Your task to perform on an android device: create a new album in the google photos Image 0: 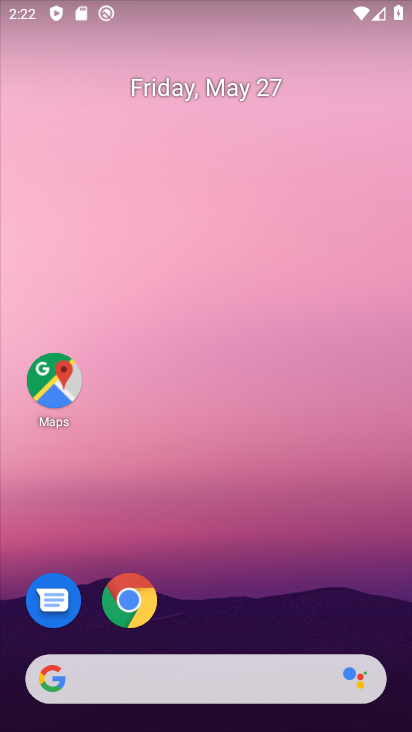
Step 0: drag from (213, 726) to (214, 14)
Your task to perform on an android device: create a new album in the google photos Image 1: 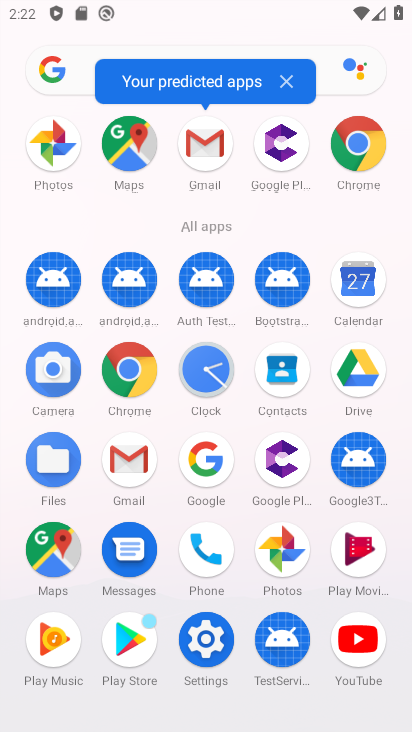
Step 1: click (278, 534)
Your task to perform on an android device: create a new album in the google photos Image 2: 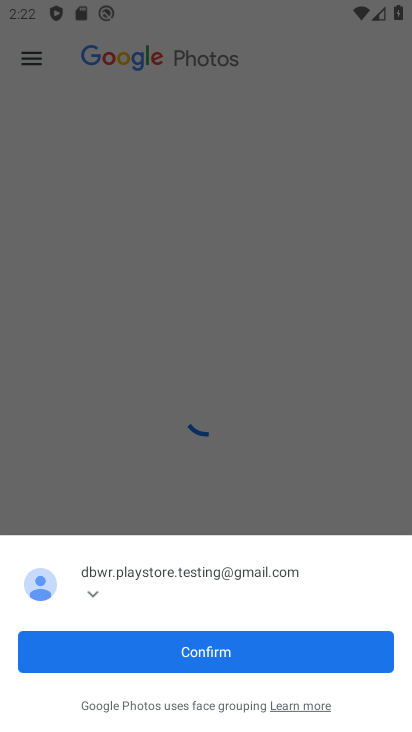
Step 2: click (208, 649)
Your task to perform on an android device: create a new album in the google photos Image 3: 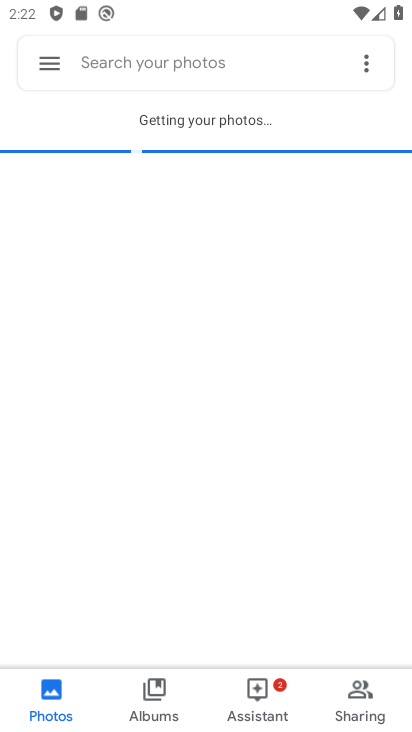
Step 3: click (365, 67)
Your task to perform on an android device: create a new album in the google photos Image 4: 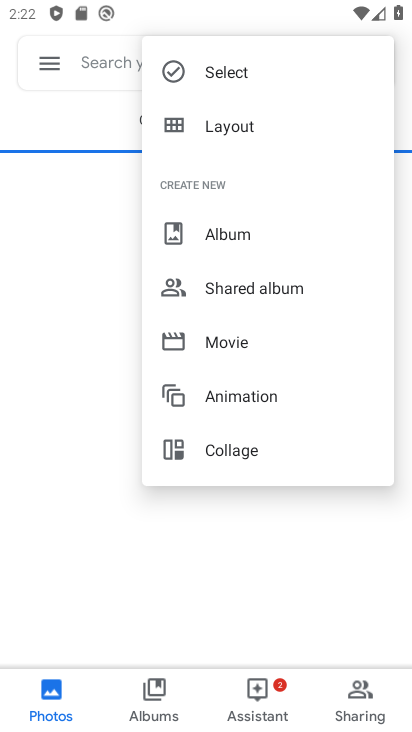
Step 4: click (225, 232)
Your task to perform on an android device: create a new album in the google photos Image 5: 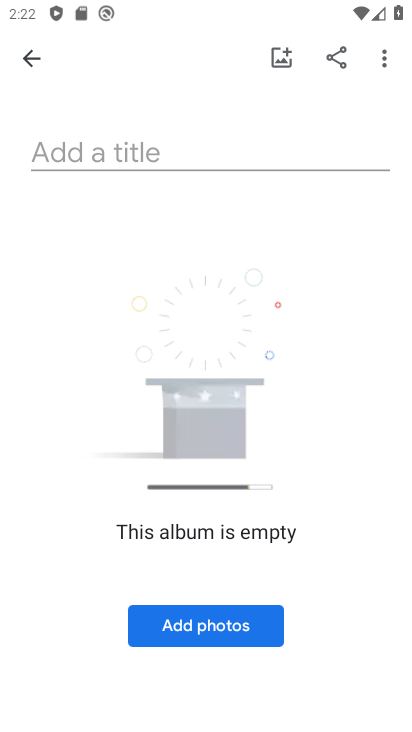
Step 5: click (160, 157)
Your task to perform on an android device: create a new album in the google photos Image 6: 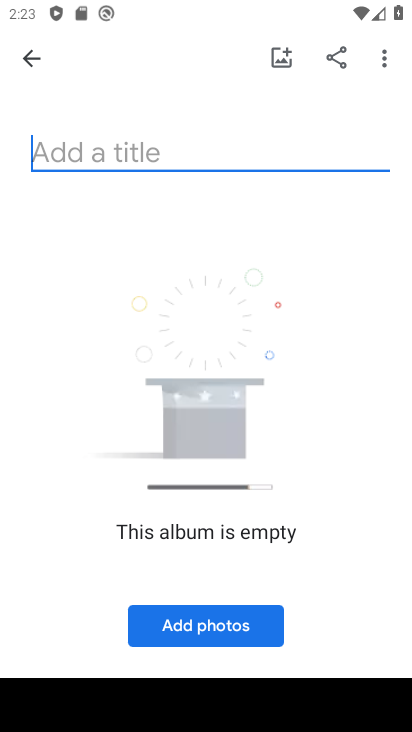
Step 6: type "tezreck"
Your task to perform on an android device: create a new album in the google photos Image 7: 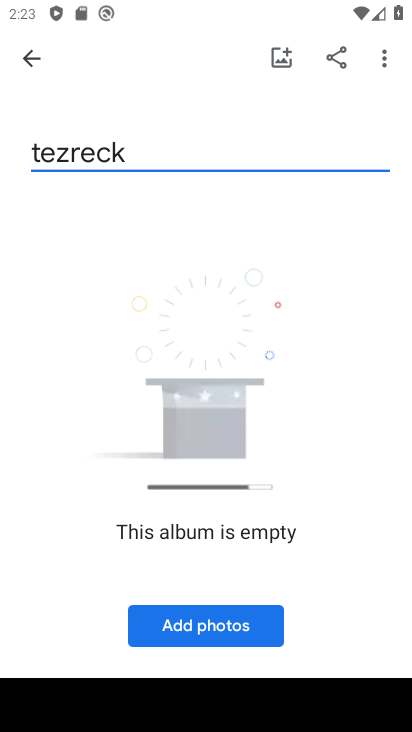
Step 7: click (191, 612)
Your task to perform on an android device: create a new album in the google photos Image 8: 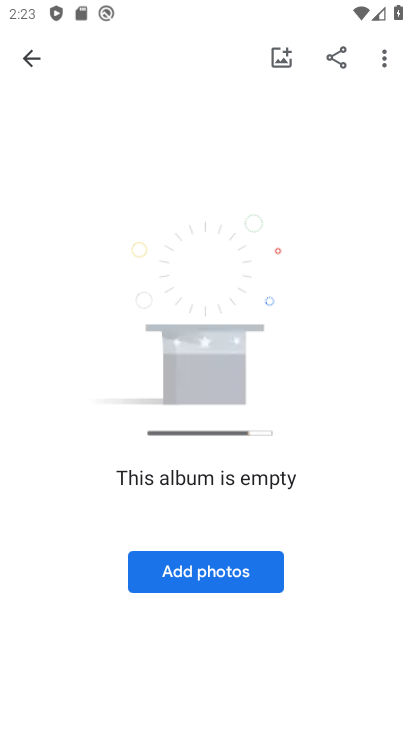
Step 8: click (209, 565)
Your task to perform on an android device: create a new album in the google photos Image 9: 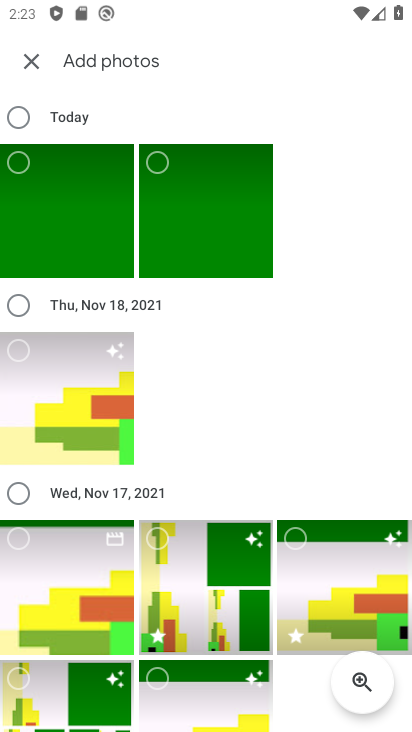
Step 9: click (162, 169)
Your task to perform on an android device: create a new album in the google photos Image 10: 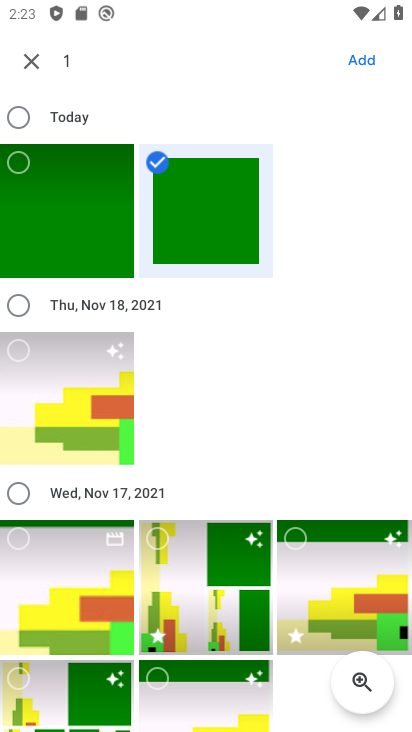
Step 10: click (364, 55)
Your task to perform on an android device: create a new album in the google photos Image 11: 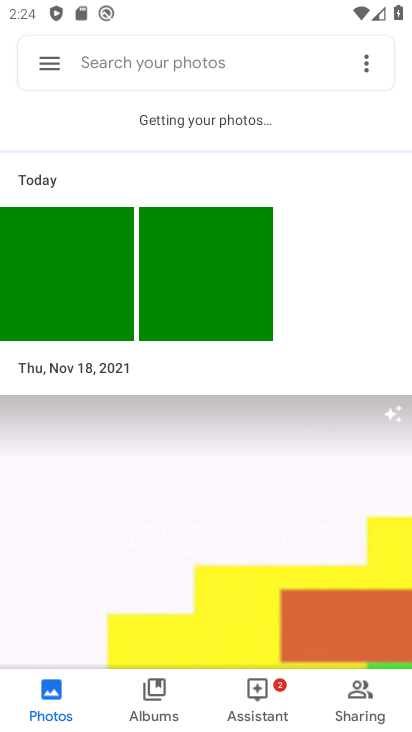
Step 11: task complete